Your task to perform on an android device: Do I have any events this weekend? Image 0: 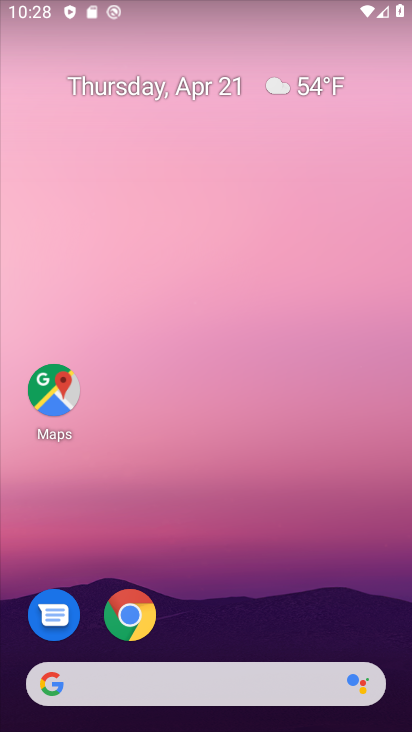
Step 0: drag from (284, 622) to (224, 51)
Your task to perform on an android device: Do I have any events this weekend? Image 1: 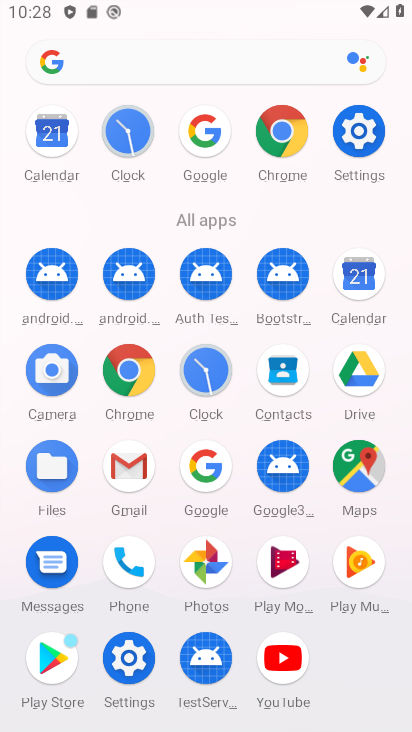
Step 1: click (366, 282)
Your task to perform on an android device: Do I have any events this weekend? Image 2: 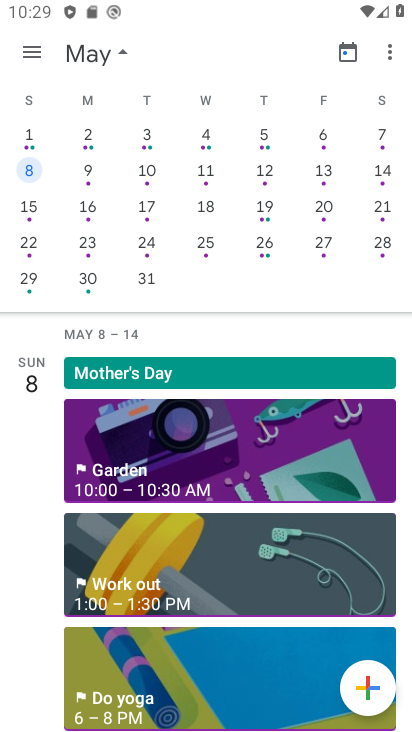
Step 2: drag from (65, 188) to (397, 169)
Your task to perform on an android device: Do I have any events this weekend? Image 3: 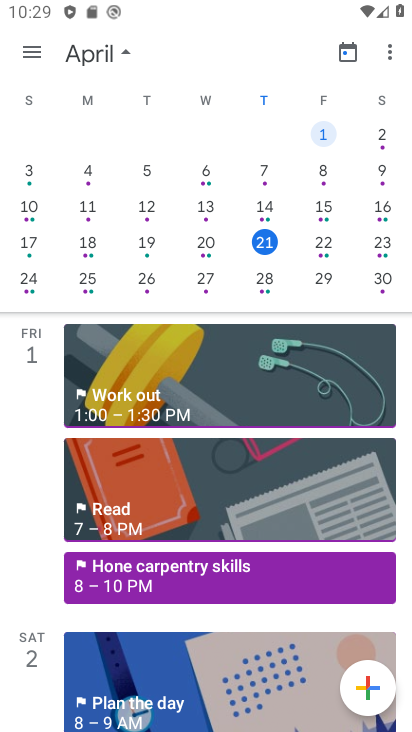
Step 3: click (376, 246)
Your task to perform on an android device: Do I have any events this weekend? Image 4: 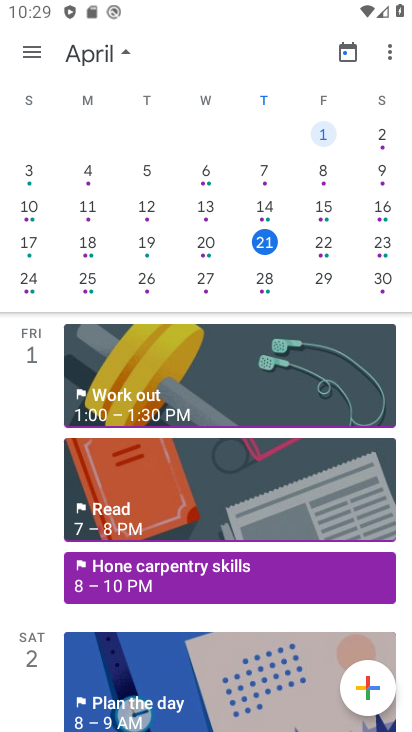
Step 4: click (385, 244)
Your task to perform on an android device: Do I have any events this weekend? Image 5: 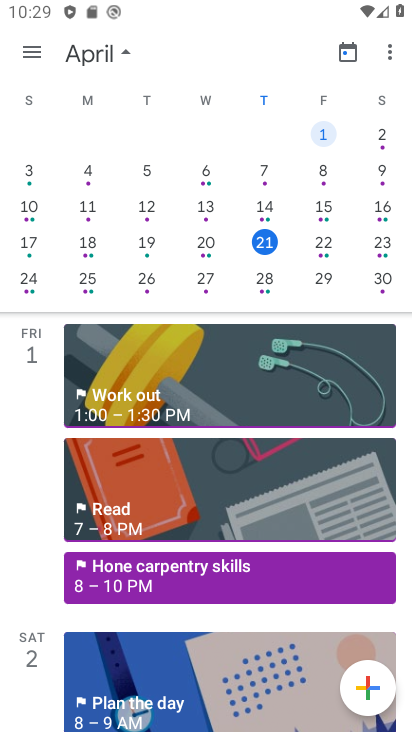
Step 5: click (386, 244)
Your task to perform on an android device: Do I have any events this weekend? Image 6: 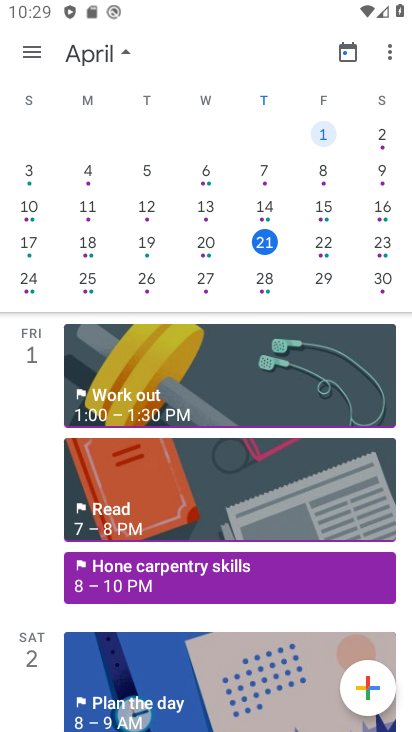
Step 6: click (385, 250)
Your task to perform on an android device: Do I have any events this weekend? Image 7: 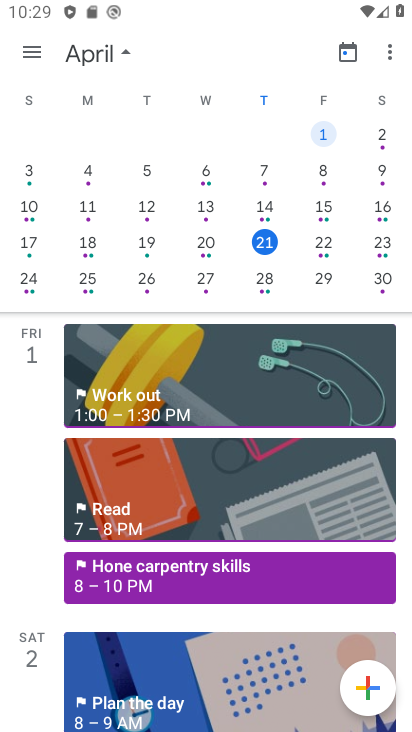
Step 7: click (385, 258)
Your task to perform on an android device: Do I have any events this weekend? Image 8: 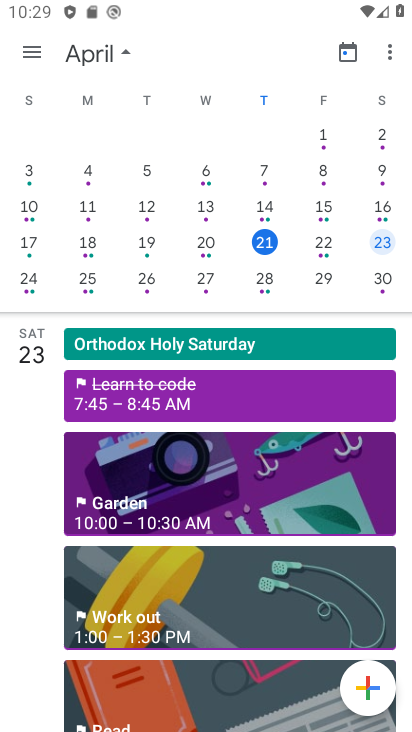
Step 8: click (29, 289)
Your task to perform on an android device: Do I have any events this weekend? Image 9: 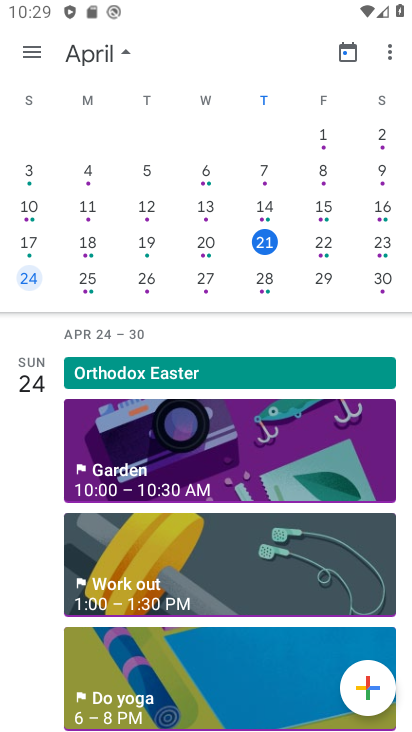
Step 9: task complete